Your task to perform on an android device: change text size in settings app Image 0: 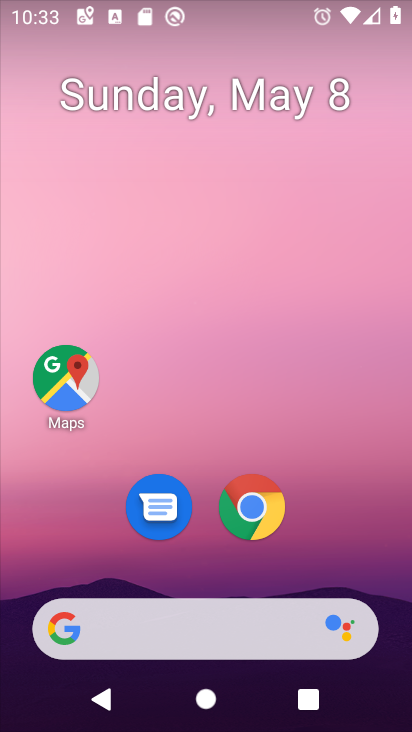
Step 0: drag from (266, 558) to (245, 161)
Your task to perform on an android device: change text size in settings app Image 1: 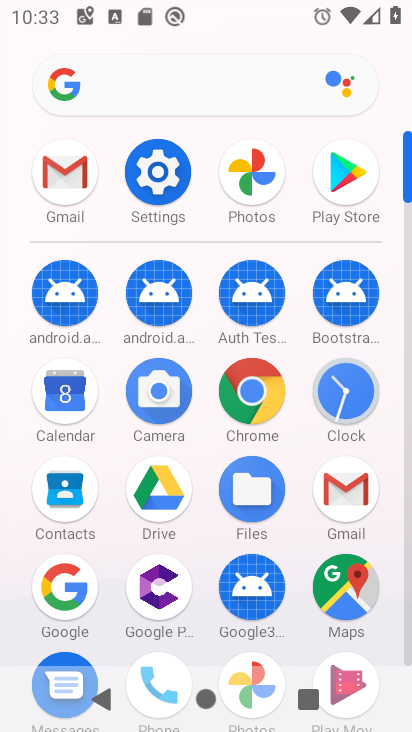
Step 1: click (152, 189)
Your task to perform on an android device: change text size in settings app Image 2: 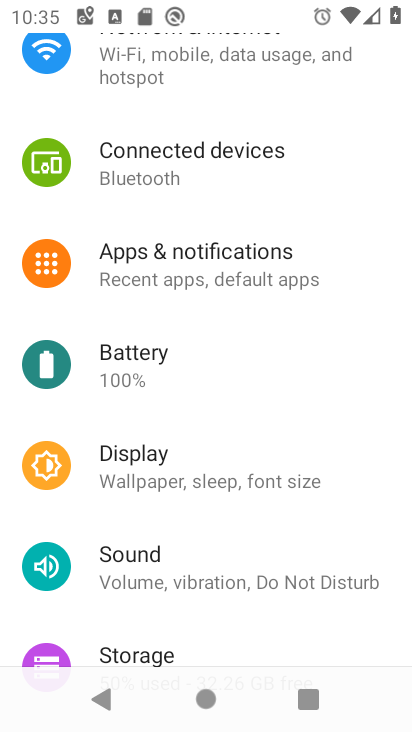
Step 2: click (301, 479)
Your task to perform on an android device: change text size in settings app Image 3: 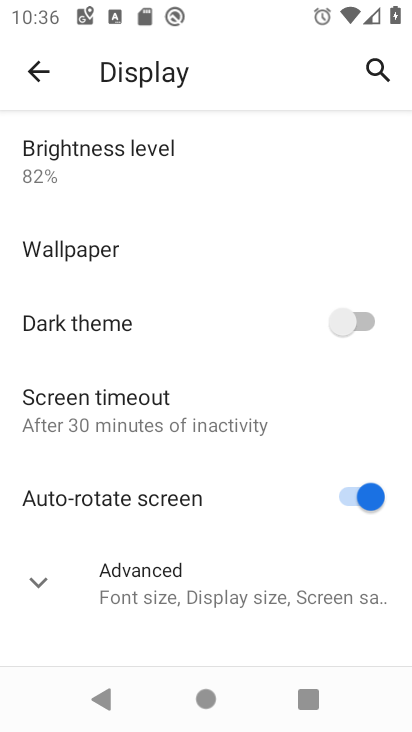
Step 3: click (255, 610)
Your task to perform on an android device: change text size in settings app Image 4: 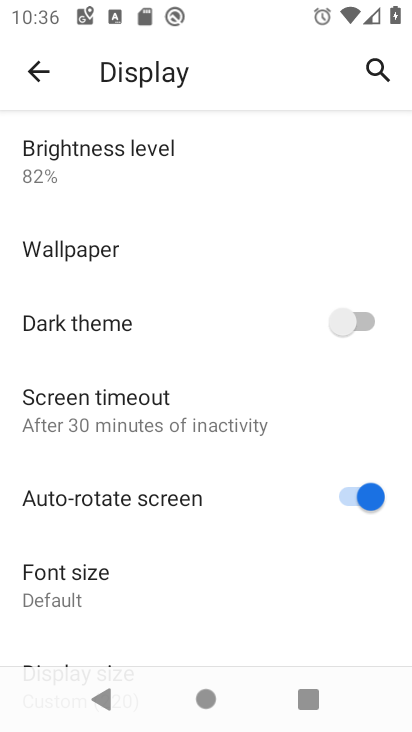
Step 4: click (102, 591)
Your task to perform on an android device: change text size in settings app Image 5: 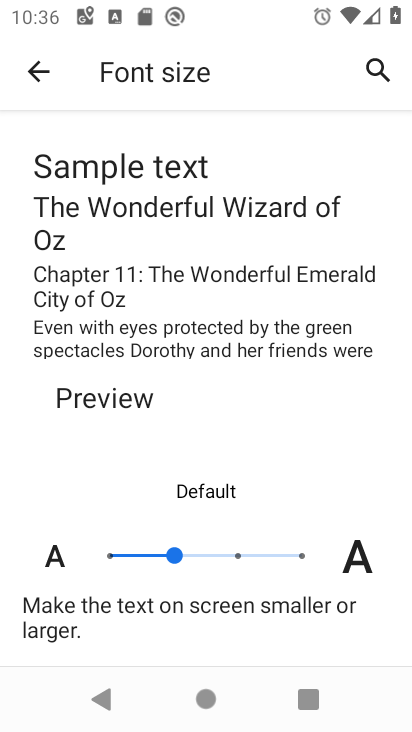
Step 5: click (114, 555)
Your task to perform on an android device: change text size in settings app Image 6: 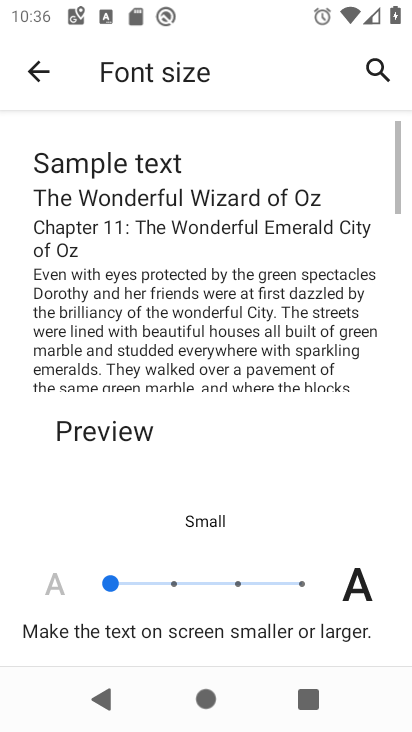
Step 6: task complete